Your task to perform on an android device: What's the weather today? Image 0: 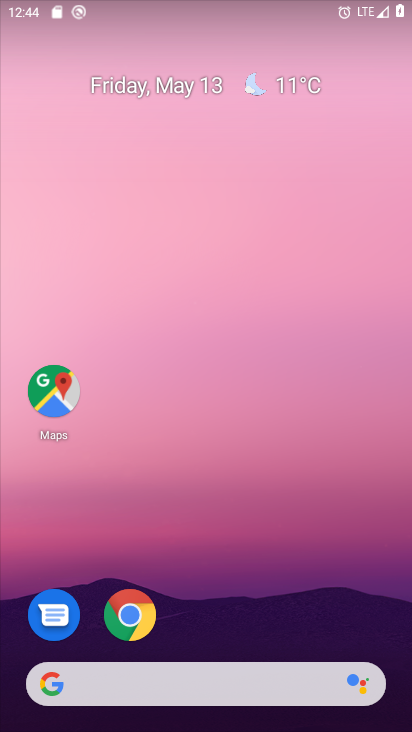
Step 0: click (293, 75)
Your task to perform on an android device: What's the weather today? Image 1: 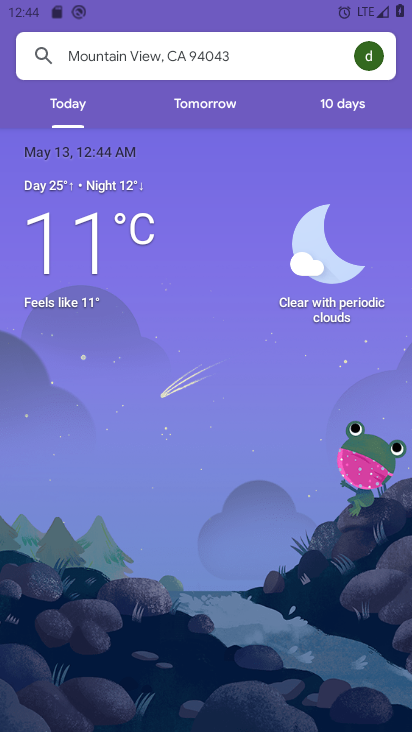
Step 1: task complete